Your task to perform on an android device: turn off javascript in the chrome app Image 0: 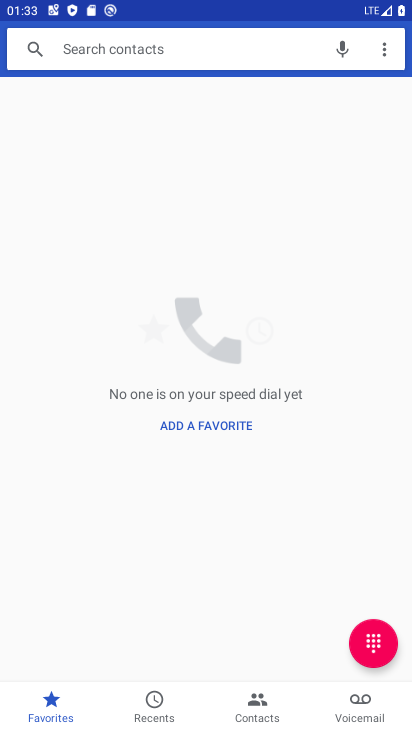
Step 0: press home button
Your task to perform on an android device: turn off javascript in the chrome app Image 1: 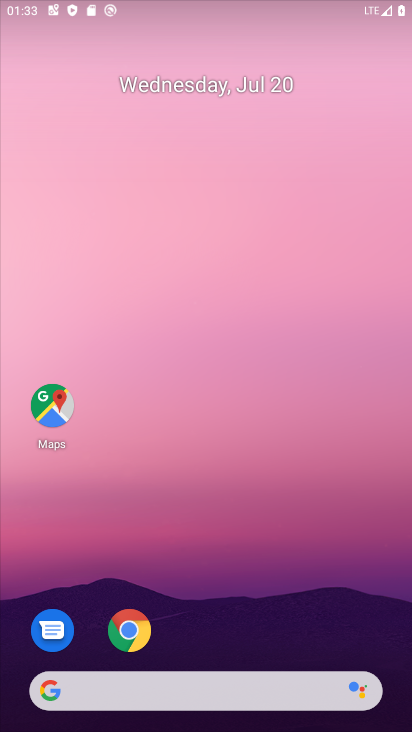
Step 1: drag from (304, 549) to (320, 11)
Your task to perform on an android device: turn off javascript in the chrome app Image 2: 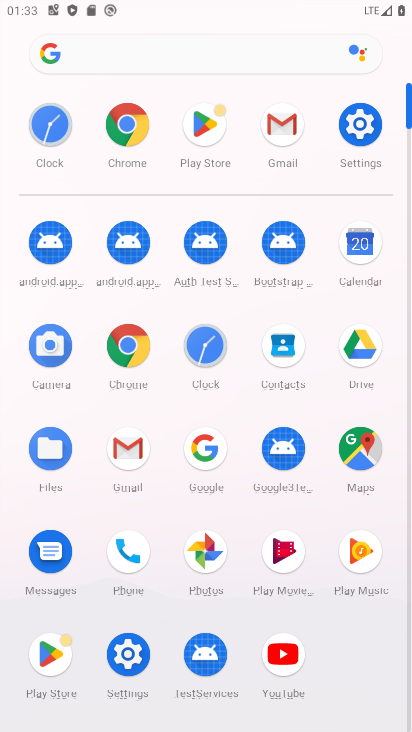
Step 2: click (133, 355)
Your task to perform on an android device: turn off javascript in the chrome app Image 3: 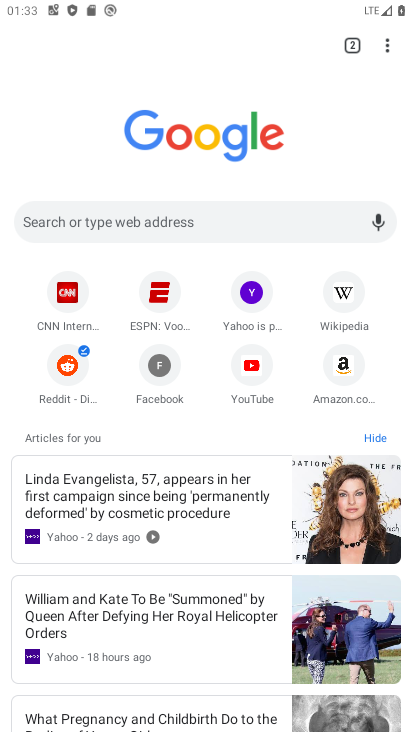
Step 3: drag from (390, 44) to (227, 431)
Your task to perform on an android device: turn off javascript in the chrome app Image 4: 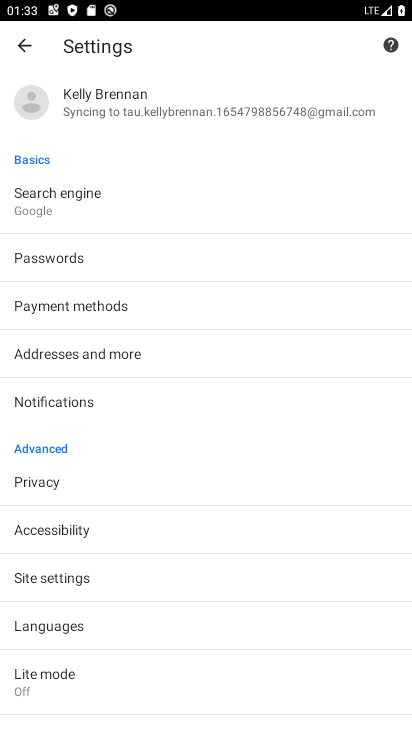
Step 4: click (54, 587)
Your task to perform on an android device: turn off javascript in the chrome app Image 5: 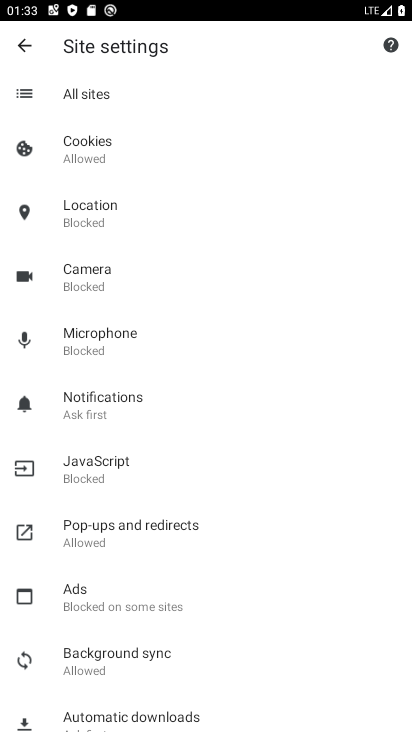
Step 5: click (114, 476)
Your task to perform on an android device: turn off javascript in the chrome app Image 6: 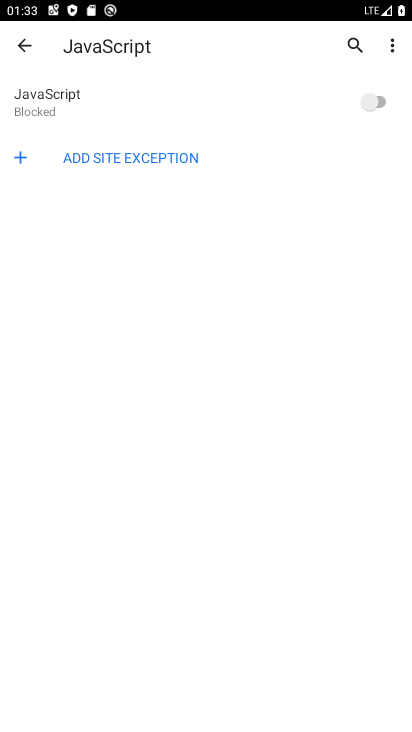
Step 6: task complete